Your task to perform on an android device: open app "Move to iOS" (install if not already installed) Image 0: 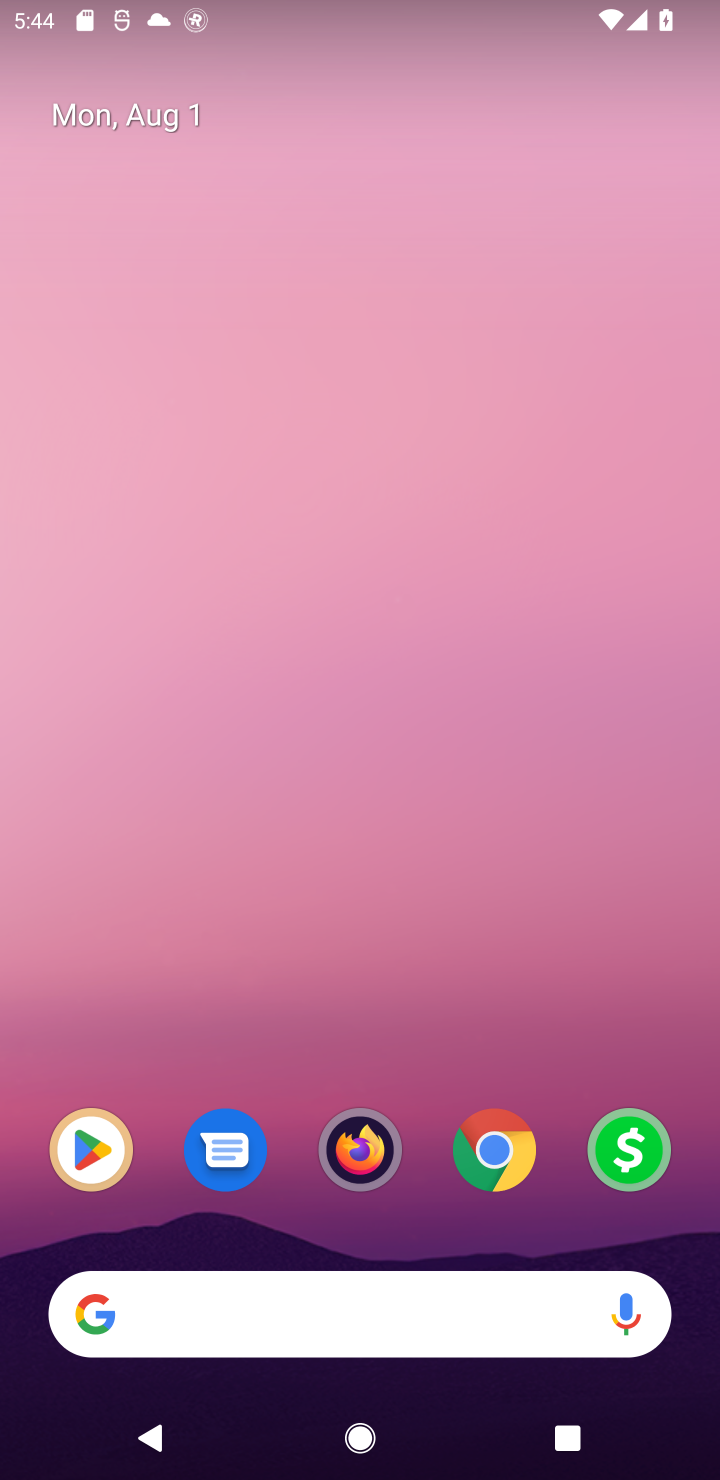
Step 0: click (119, 1159)
Your task to perform on an android device: open app "Move to iOS" (install if not already installed) Image 1: 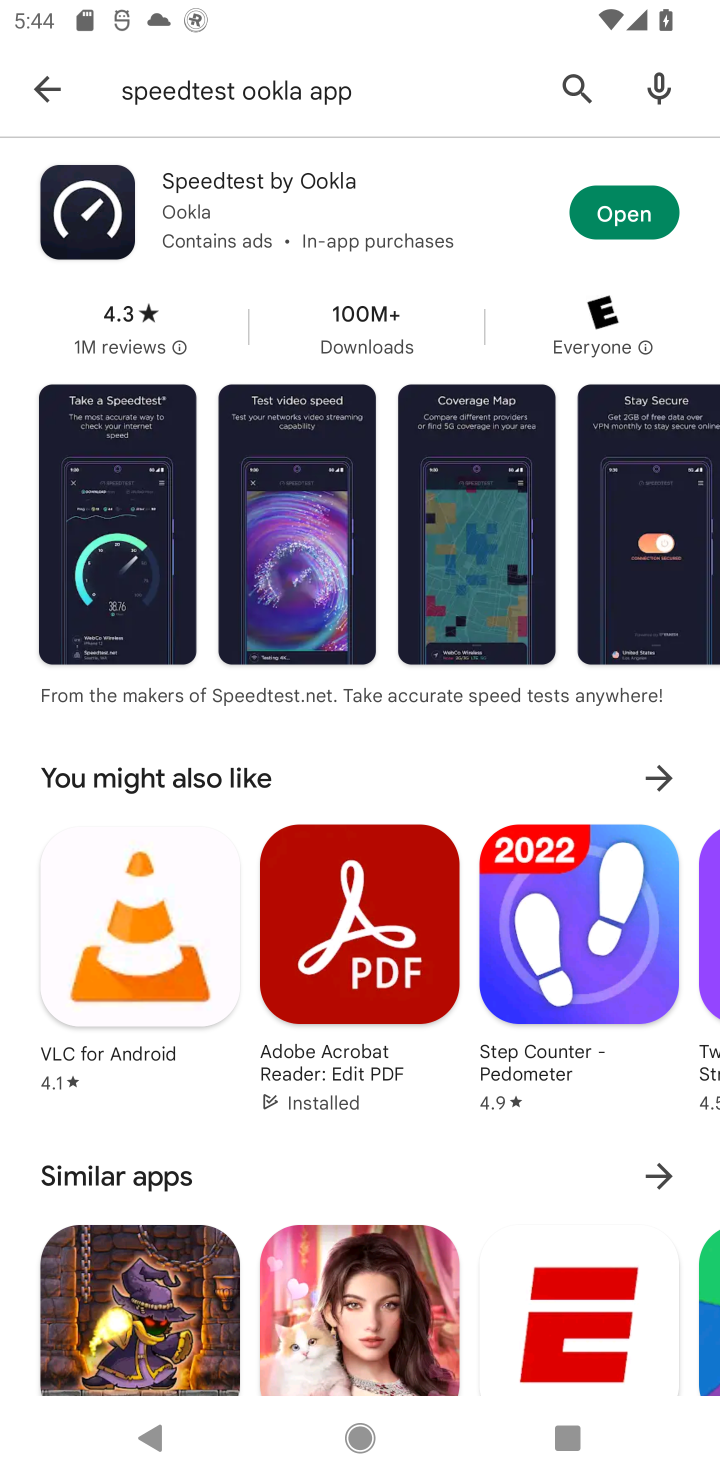
Step 1: click (574, 99)
Your task to perform on an android device: open app "Move to iOS" (install if not already installed) Image 2: 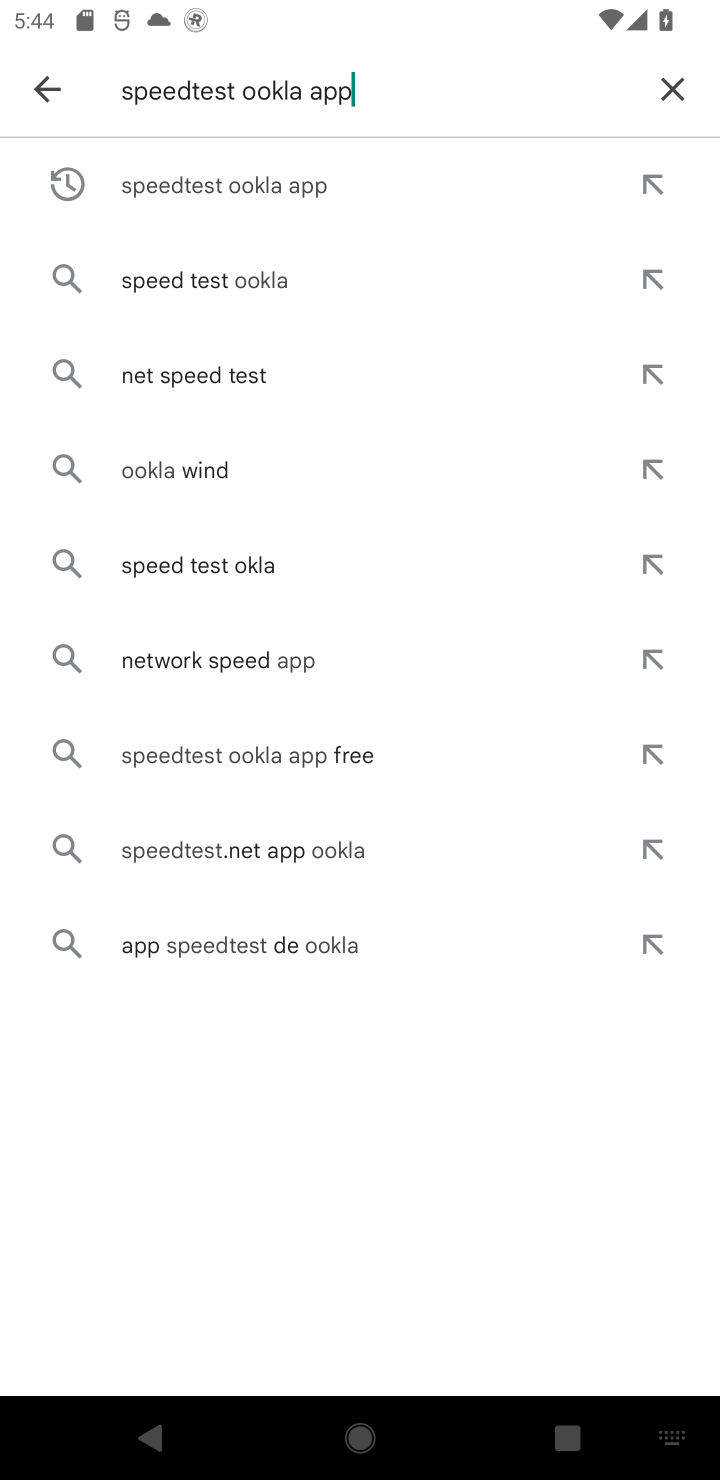
Step 2: click (702, 96)
Your task to perform on an android device: open app "Move to iOS" (install if not already installed) Image 3: 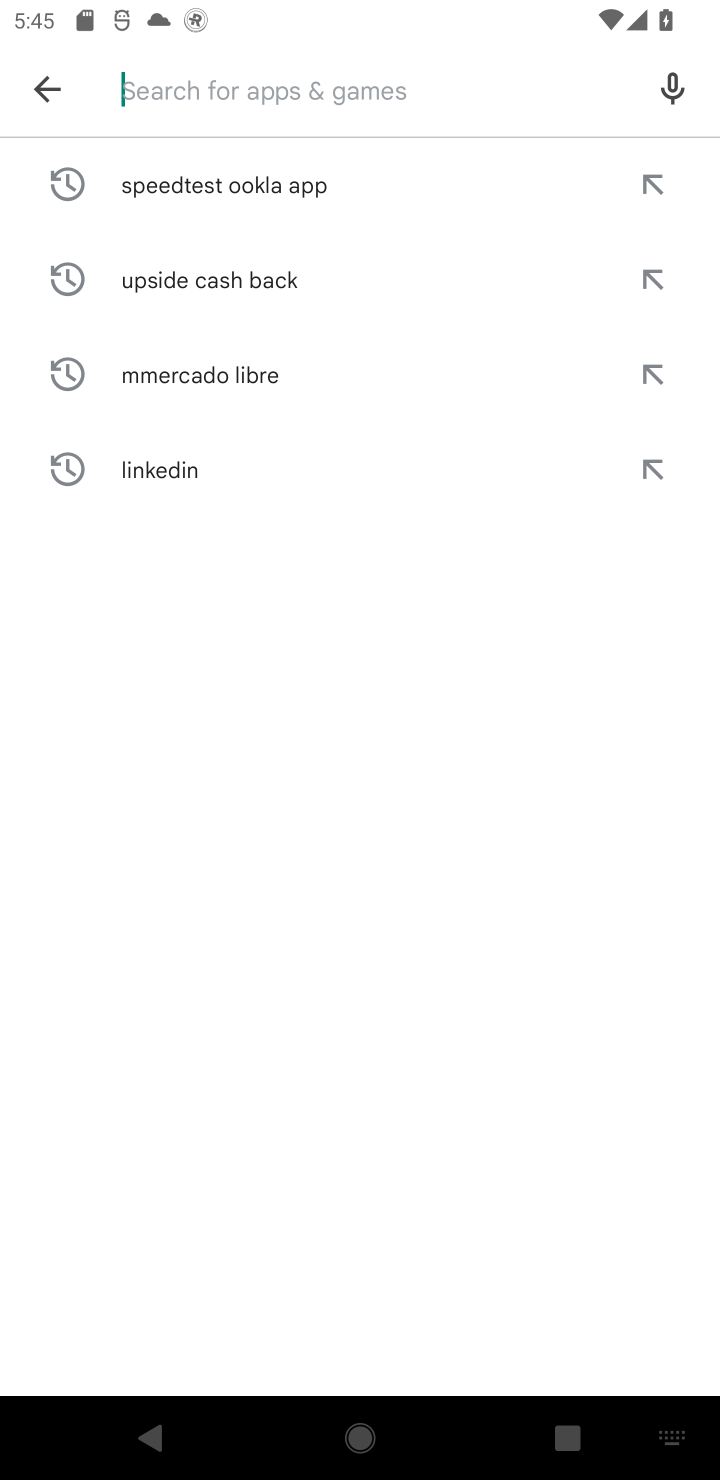
Step 3: type "move iso"
Your task to perform on an android device: open app "Move to iOS" (install if not already installed) Image 4: 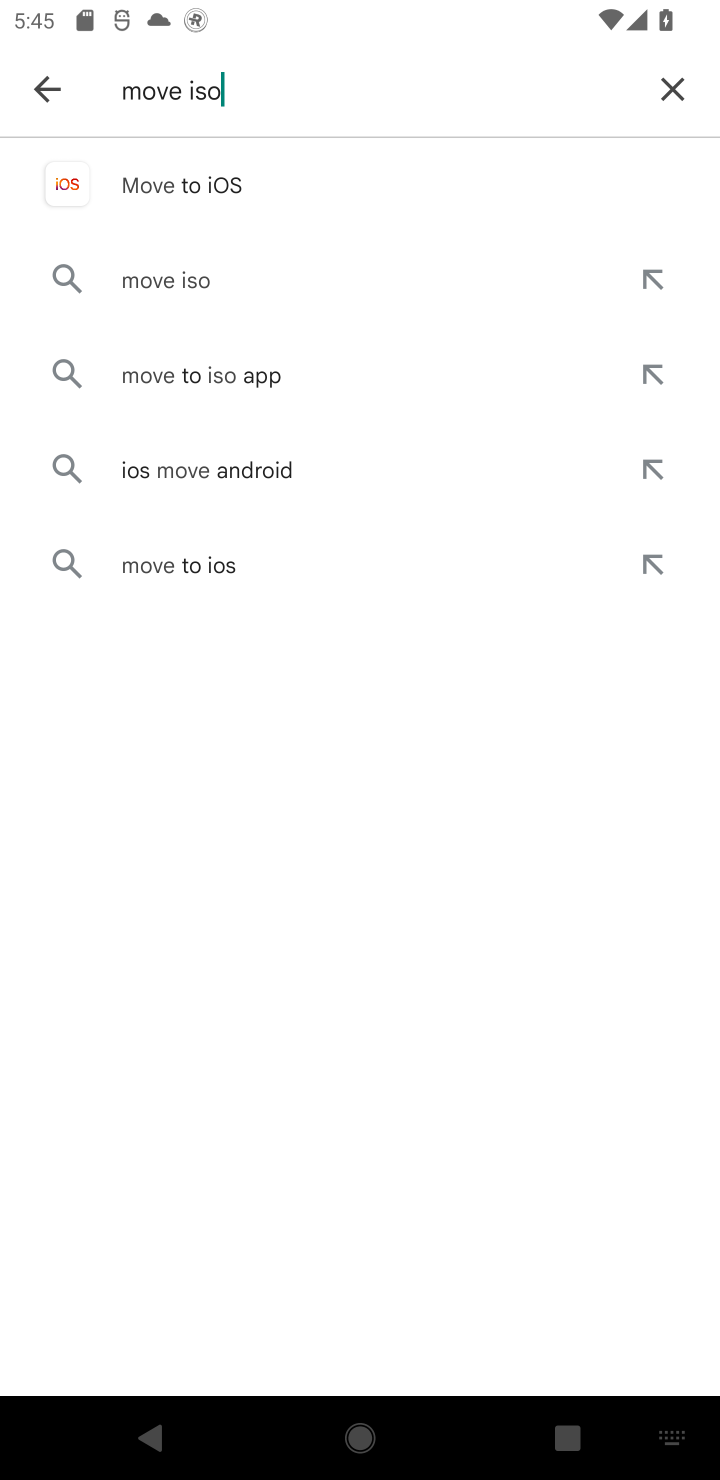
Step 4: click (340, 165)
Your task to perform on an android device: open app "Move to iOS" (install if not already installed) Image 5: 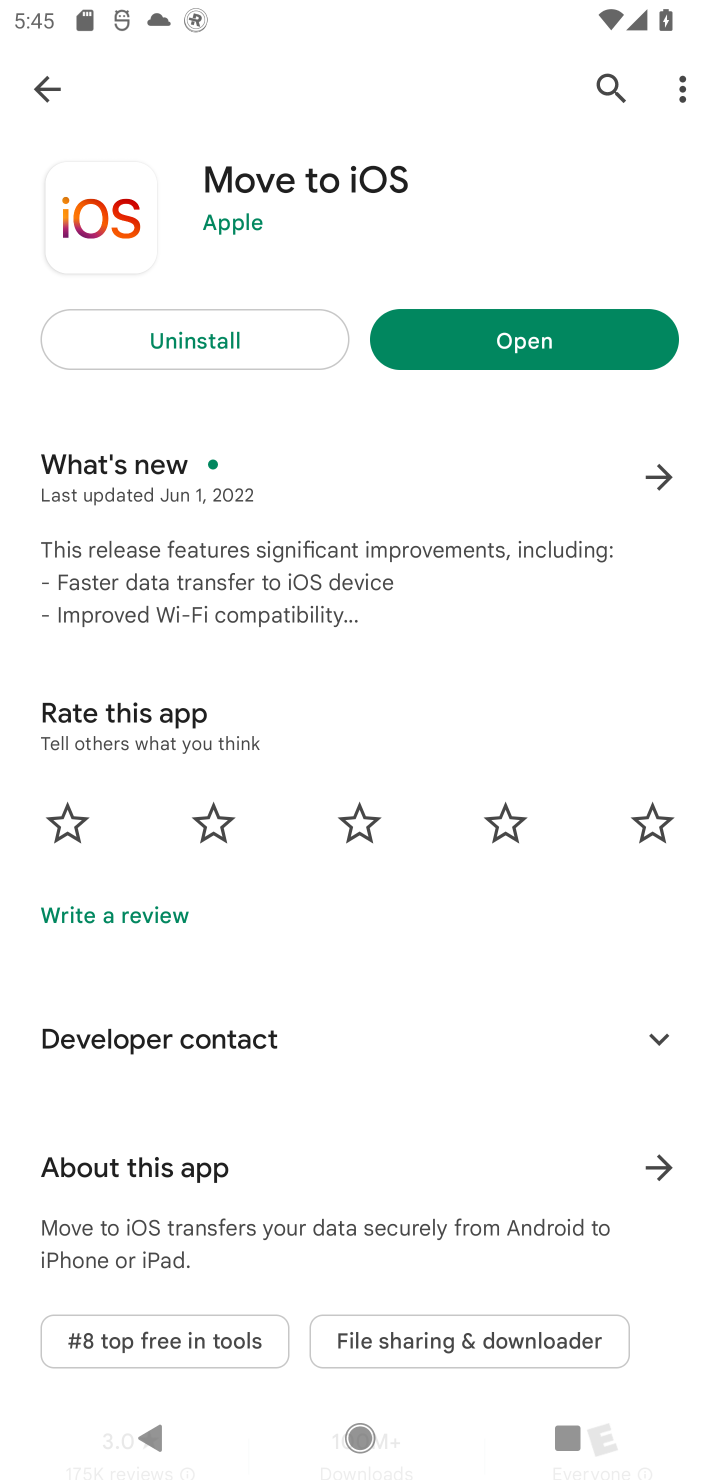
Step 5: click (429, 337)
Your task to perform on an android device: open app "Move to iOS" (install if not already installed) Image 6: 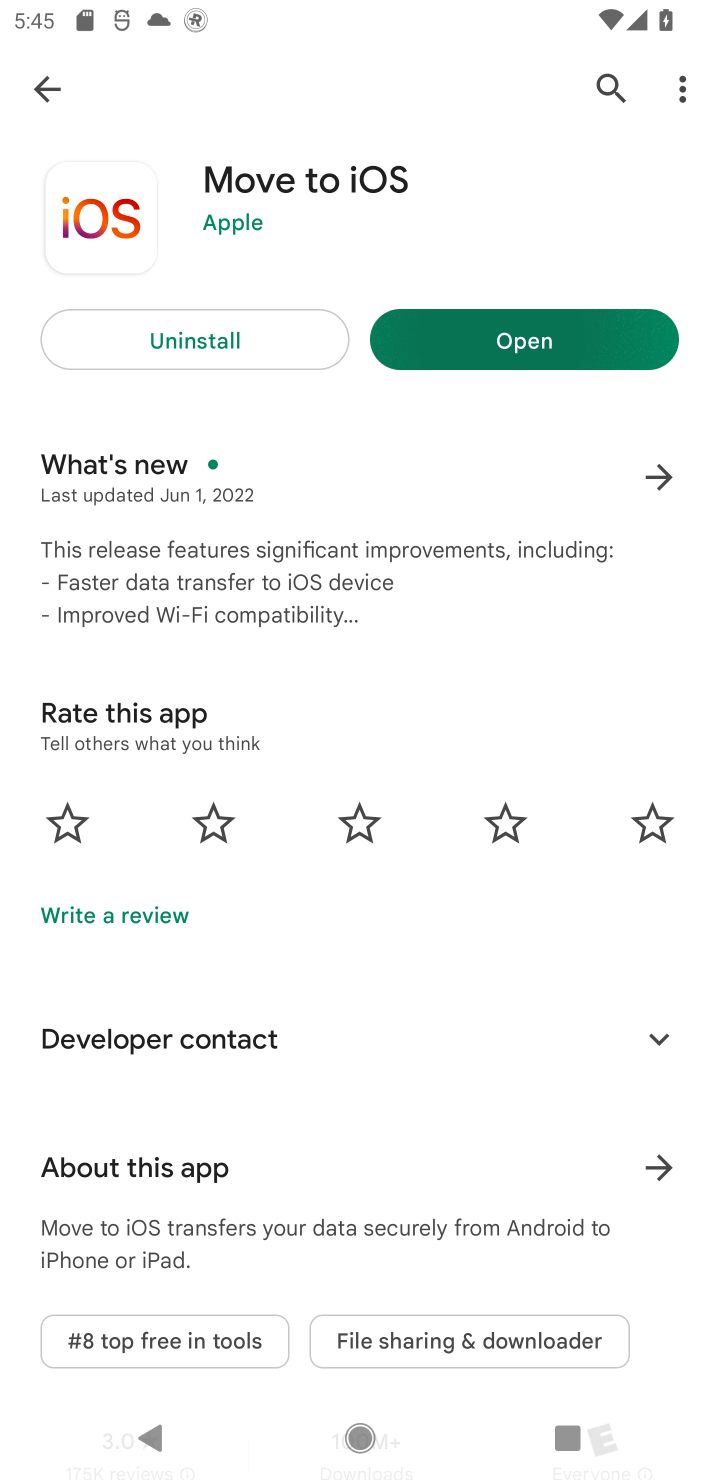
Step 6: task complete